Your task to perform on an android device: When is my next appointment? Image 0: 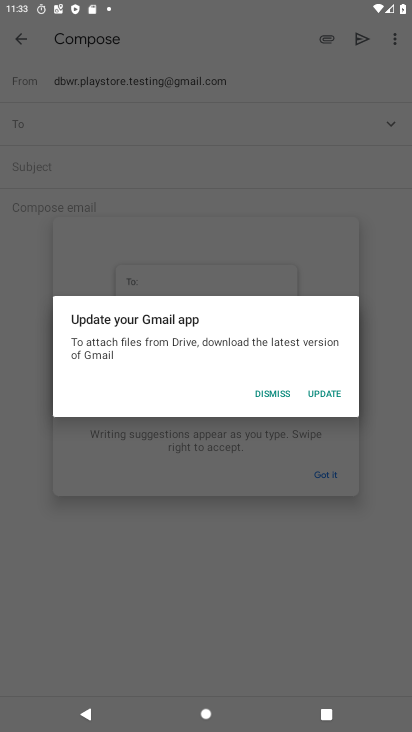
Step 0: press home button
Your task to perform on an android device: When is my next appointment? Image 1: 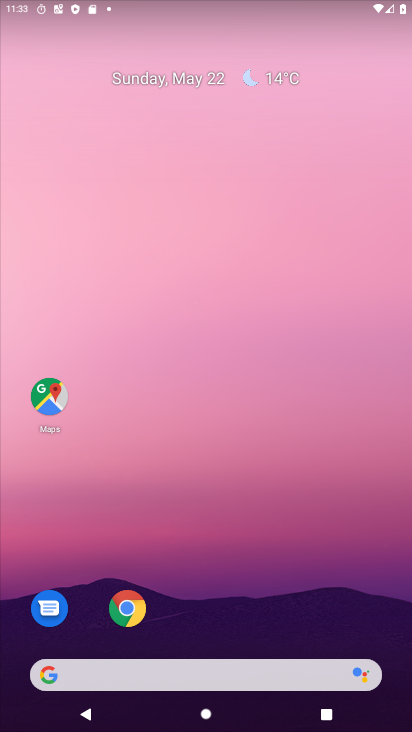
Step 1: drag from (259, 631) to (228, 206)
Your task to perform on an android device: When is my next appointment? Image 2: 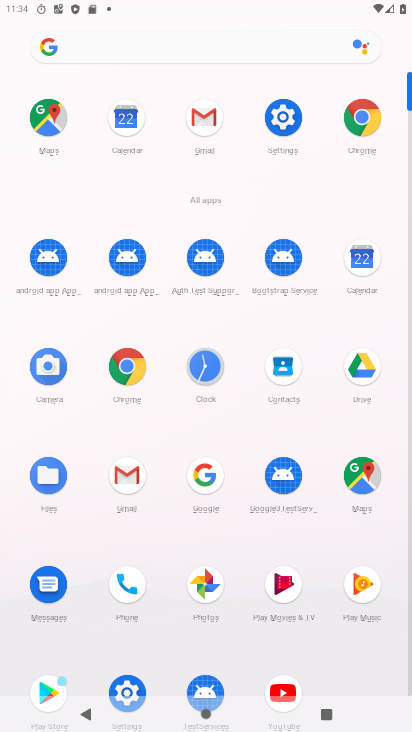
Step 2: click (357, 260)
Your task to perform on an android device: When is my next appointment? Image 3: 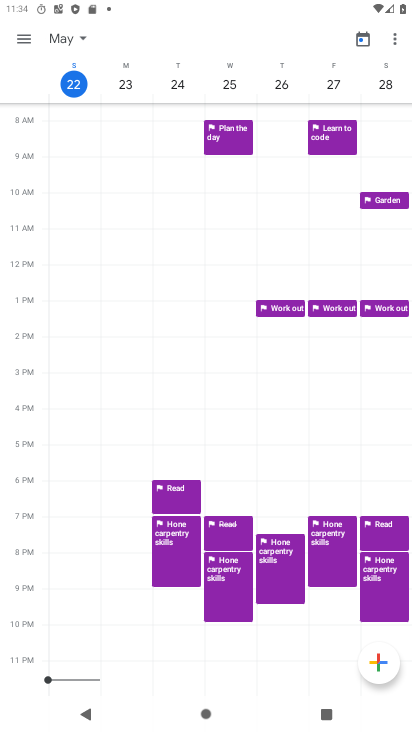
Step 3: click (25, 41)
Your task to perform on an android device: When is my next appointment? Image 4: 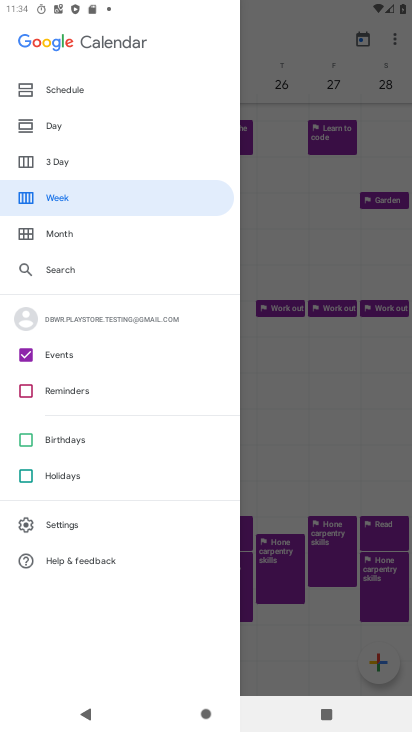
Step 4: click (63, 85)
Your task to perform on an android device: When is my next appointment? Image 5: 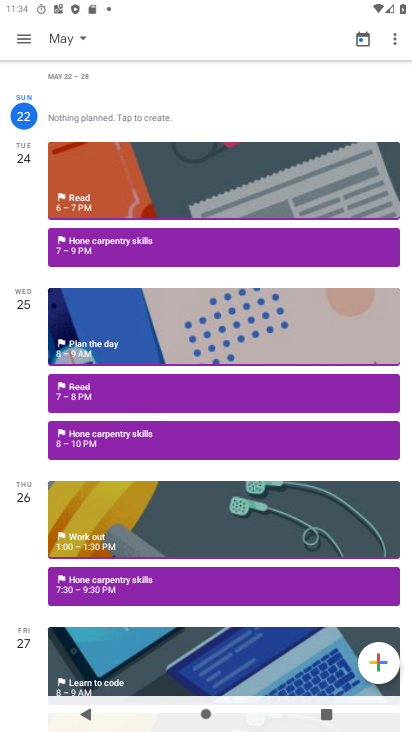
Step 5: click (73, 40)
Your task to perform on an android device: When is my next appointment? Image 6: 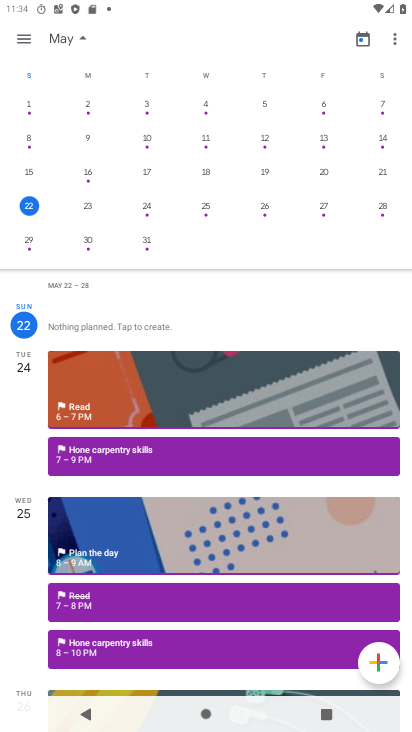
Step 6: click (91, 209)
Your task to perform on an android device: When is my next appointment? Image 7: 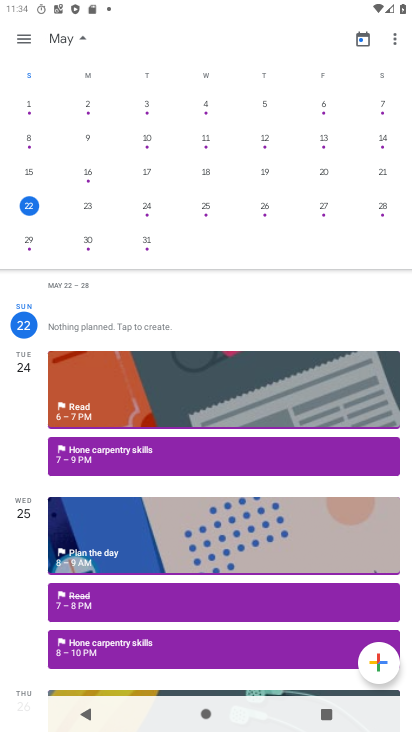
Step 7: click (87, 205)
Your task to perform on an android device: When is my next appointment? Image 8: 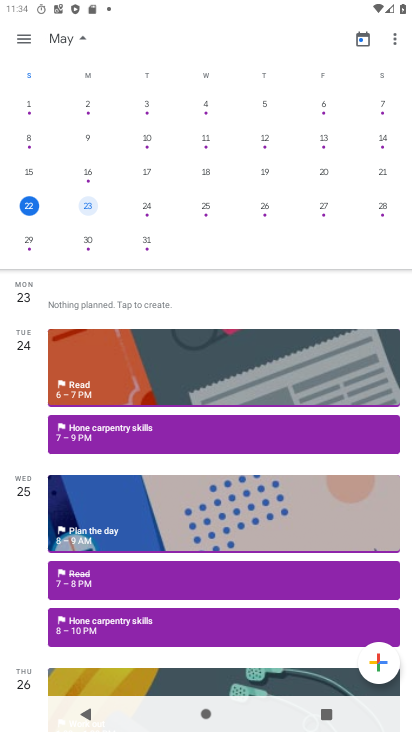
Step 8: click (77, 43)
Your task to perform on an android device: When is my next appointment? Image 9: 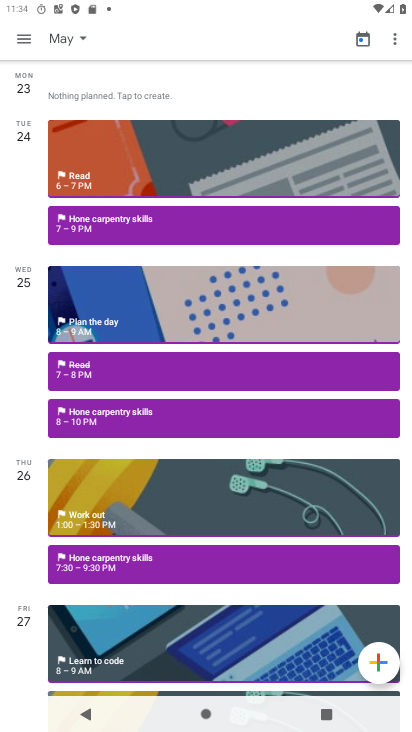
Step 9: task complete